Your task to perform on an android device: Do I have any events tomorrow? Image 0: 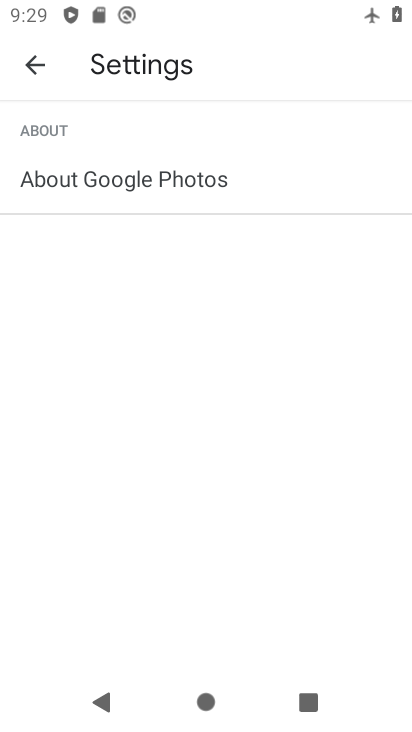
Step 0: press home button
Your task to perform on an android device: Do I have any events tomorrow? Image 1: 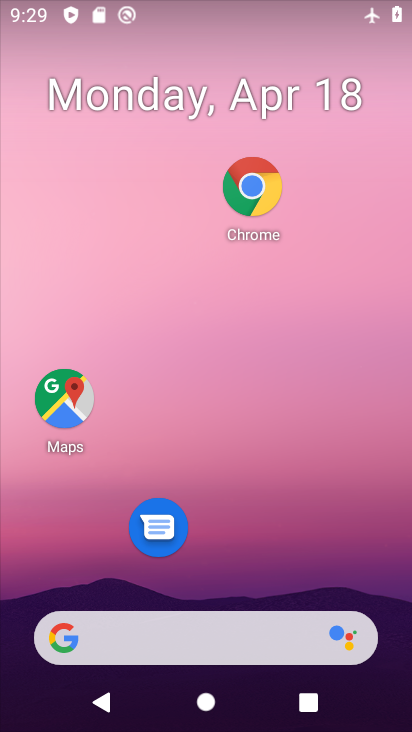
Step 1: drag from (264, 541) to (221, 7)
Your task to perform on an android device: Do I have any events tomorrow? Image 2: 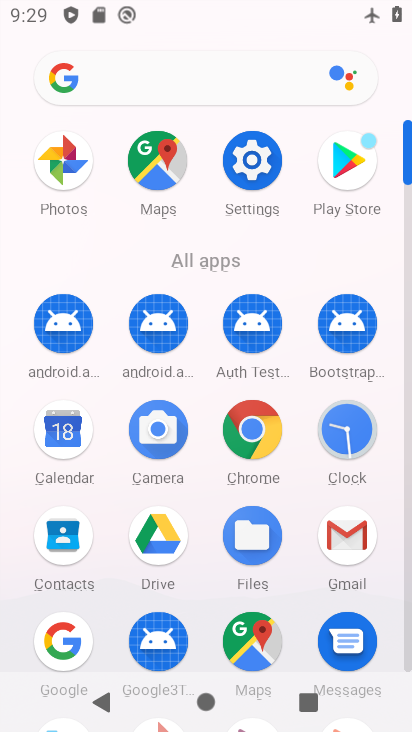
Step 2: click (67, 434)
Your task to perform on an android device: Do I have any events tomorrow? Image 3: 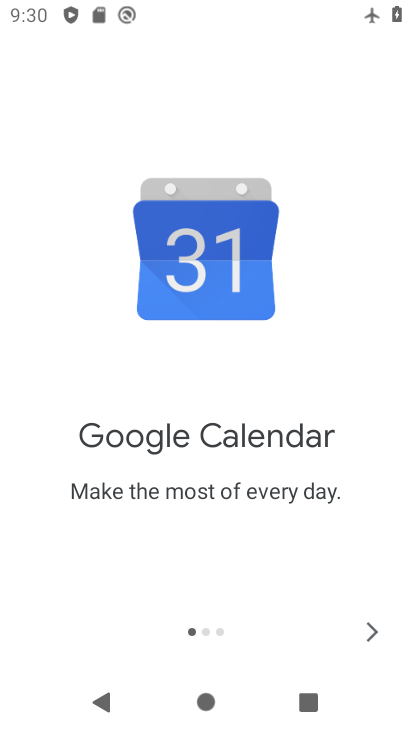
Step 3: click (371, 634)
Your task to perform on an android device: Do I have any events tomorrow? Image 4: 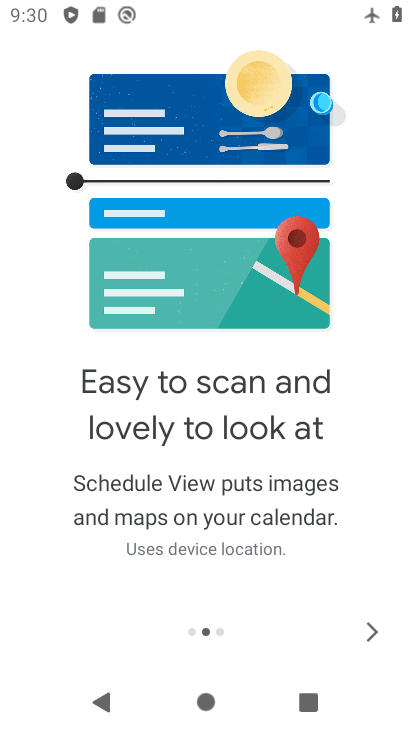
Step 4: click (371, 633)
Your task to perform on an android device: Do I have any events tomorrow? Image 5: 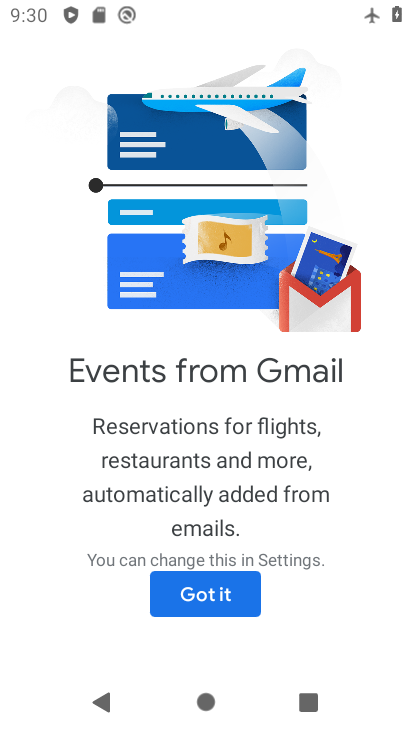
Step 5: click (200, 587)
Your task to perform on an android device: Do I have any events tomorrow? Image 6: 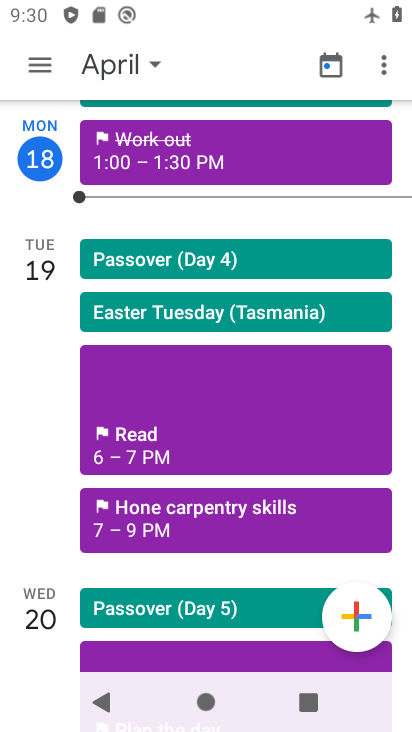
Step 6: click (44, 57)
Your task to perform on an android device: Do I have any events tomorrow? Image 7: 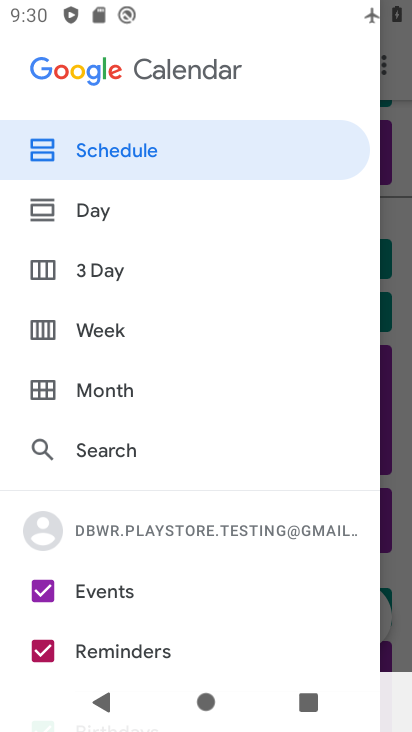
Step 7: drag from (149, 601) to (139, 265)
Your task to perform on an android device: Do I have any events tomorrow? Image 8: 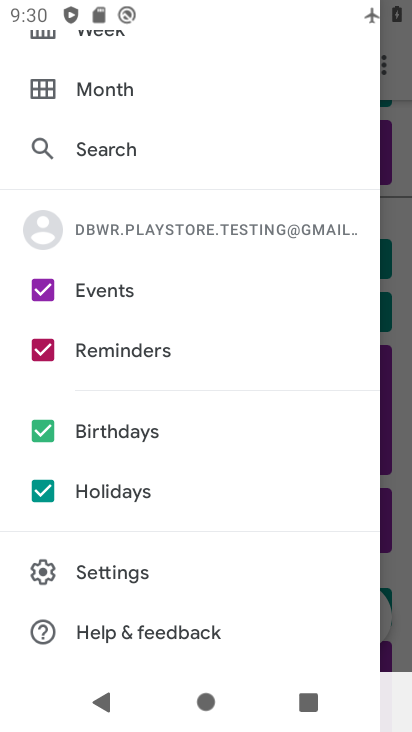
Step 8: click (45, 425)
Your task to perform on an android device: Do I have any events tomorrow? Image 9: 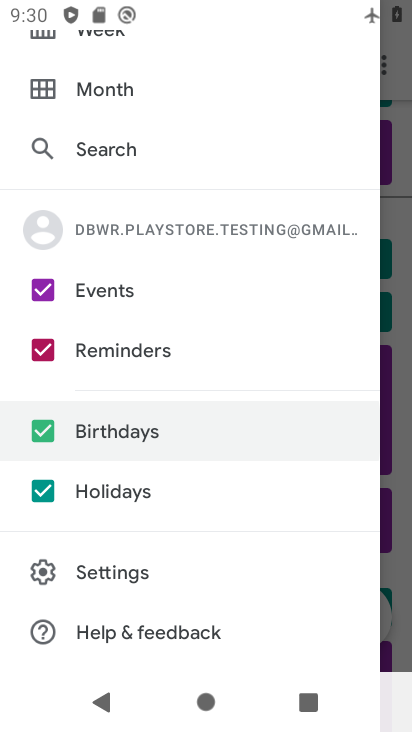
Step 9: click (41, 494)
Your task to perform on an android device: Do I have any events tomorrow? Image 10: 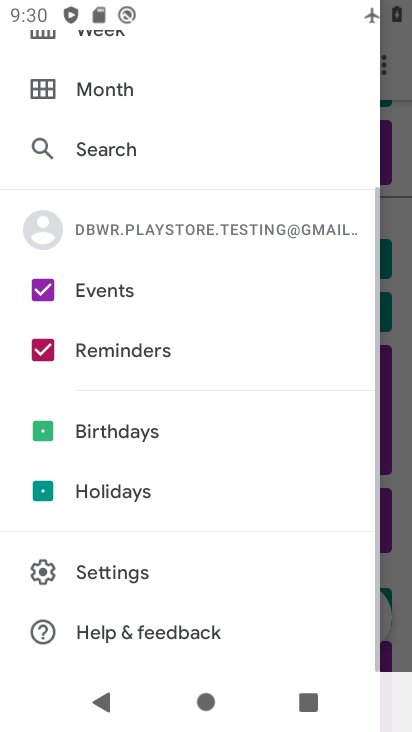
Step 10: click (41, 354)
Your task to perform on an android device: Do I have any events tomorrow? Image 11: 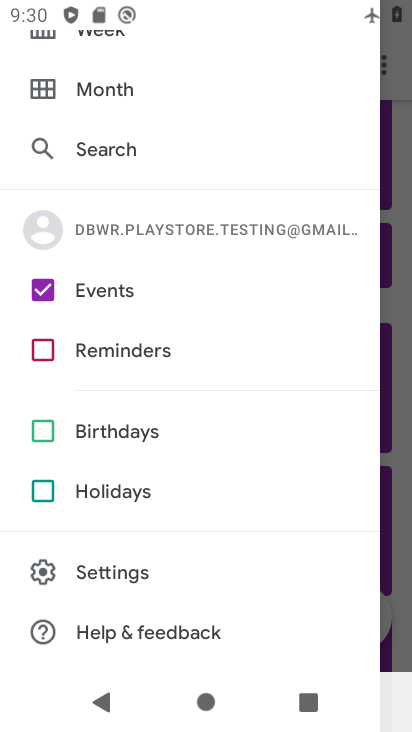
Step 11: drag from (210, 105) to (186, 562)
Your task to perform on an android device: Do I have any events tomorrow? Image 12: 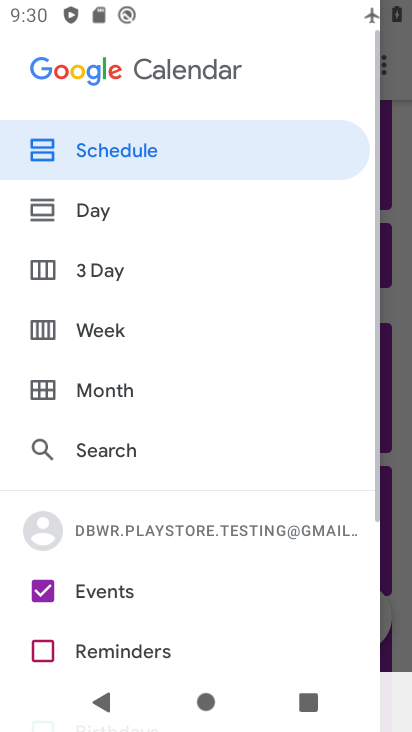
Step 12: click (170, 159)
Your task to perform on an android device: Do I have any events tomorrow? Image 13: 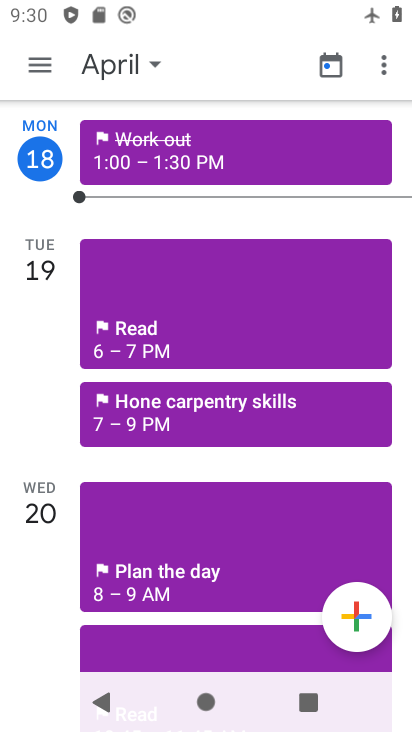
Step 13: task complete